Your task to perform on an android device: Go to Reddit.com Image 0: 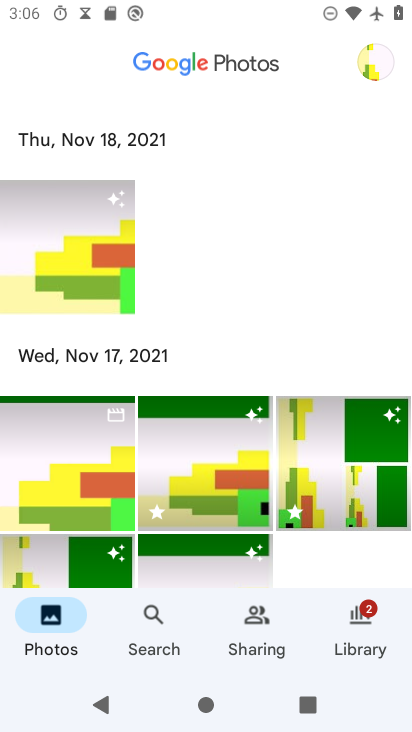
Step 0: press home button
Your task to perform on an android device: Go to Reddit.com Image 1: 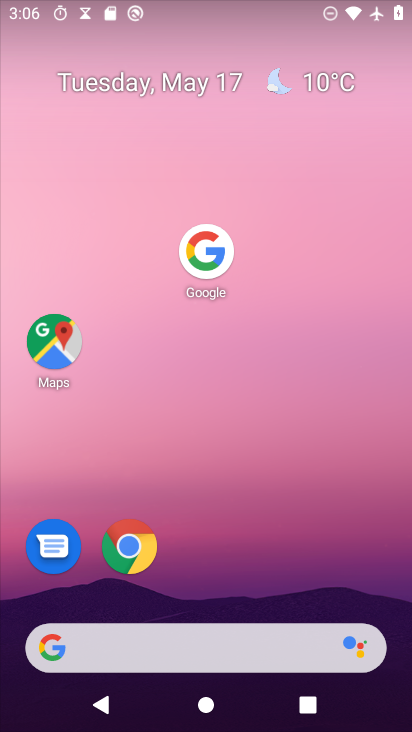
Step 1: click (131, 554)
Your task to perform on an android device: Go to Reddit.com Image 2: 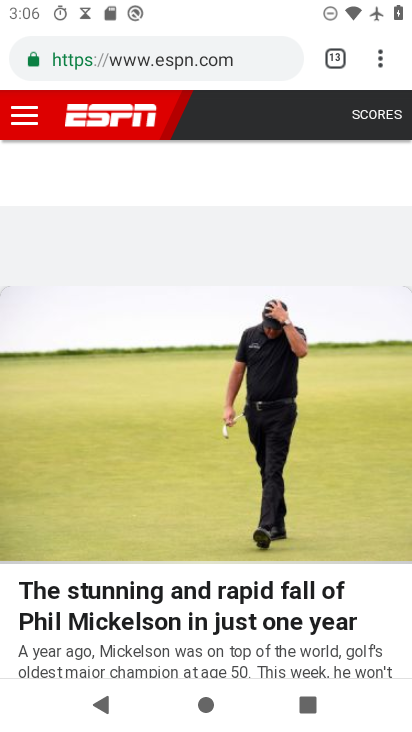
Step 2: drag from (383, 55) to (208, 112)
Your task to perform on an android device: Go to Reddit.com Image 3: 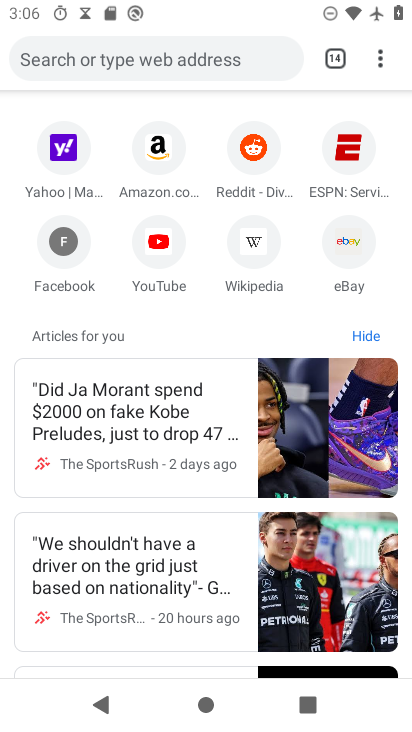
Step 3: click (260, 145)
Your task to perform on an android device: Go to Reddit.com Image 4: 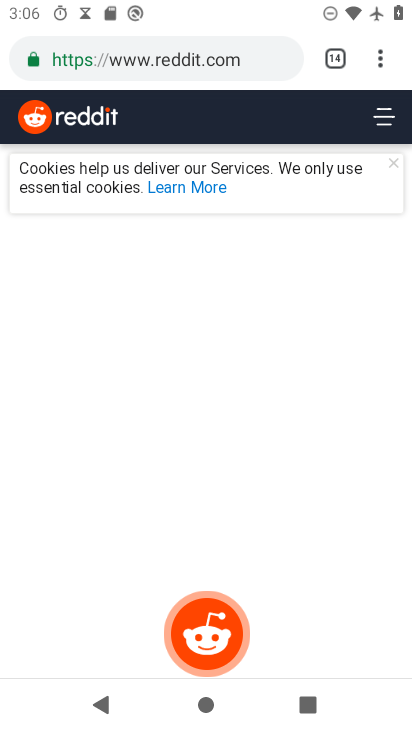
Step 4: task complete